Your task to perform on an android device: turn on sleep mode Image 0: 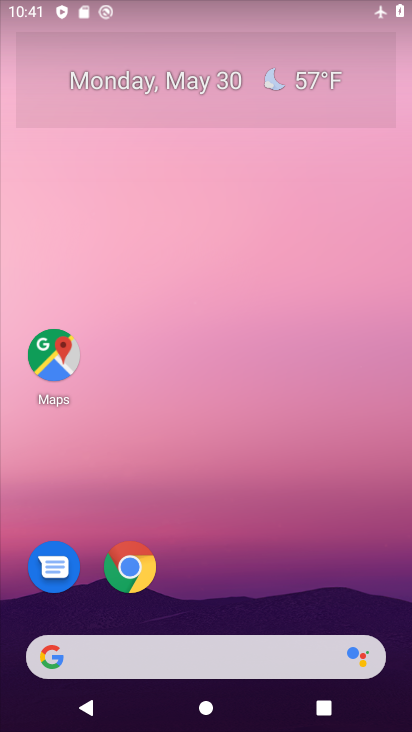
Step 0: drag from (183, 617) to (125, 160)
Your task to perform on an android device: turn on sleep mode Image 1: 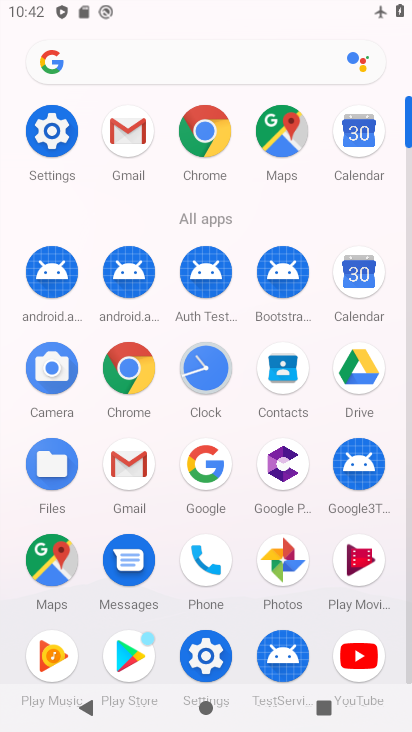
Step 1: click (75, 132)
Your task to perform on an android device: turn on sleep mode Image 2: 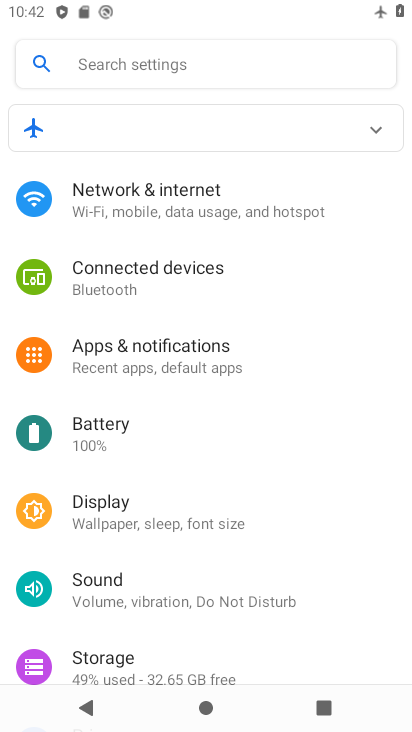
Step 2: click (131, 502)
Your task to perform on an android device: turn on sleep mode Image 3: 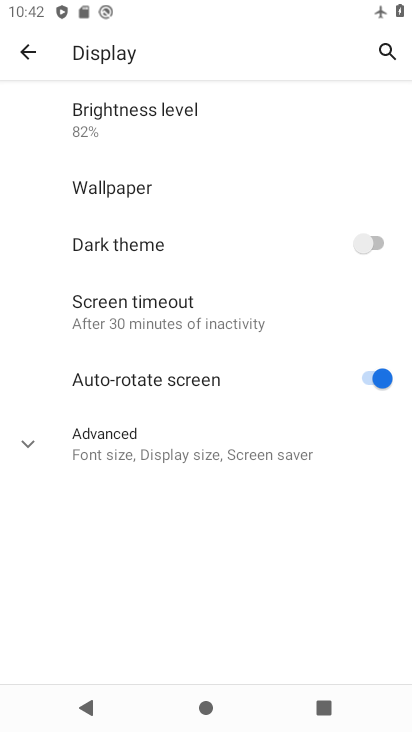
Step 3: click (159, 302)
Your task to perform on an android device: turn on sleep mode Image 4: 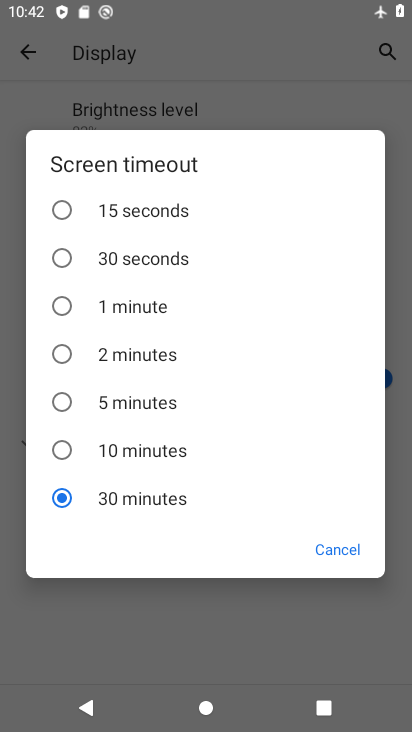
Step 4: click (156, 308)
Your task to perform on an android device: turn on sleep mode Image 5: 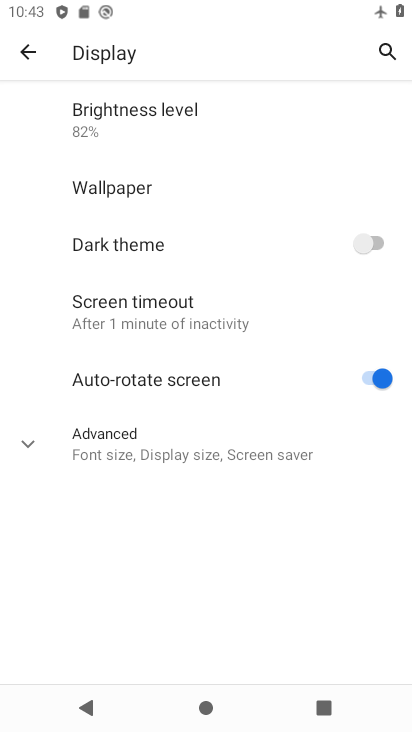
Step 5: task complete